Your task to perform on an android device: make emails show in primary in the gmail app Image 0: 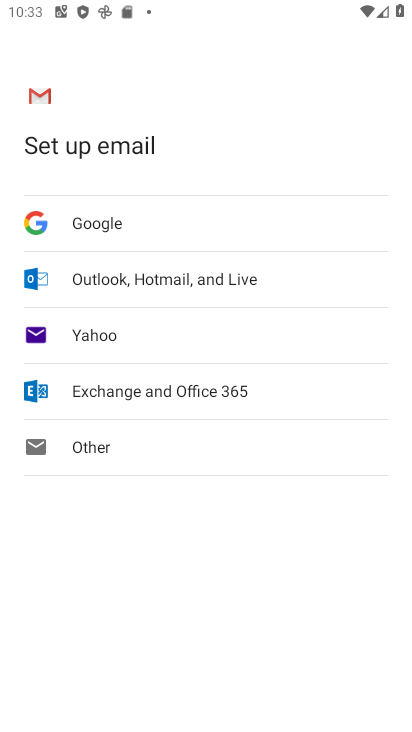
Step 0: press home button
Your task to perform on an android device: make emails show in primary in the gmail app Image 1: 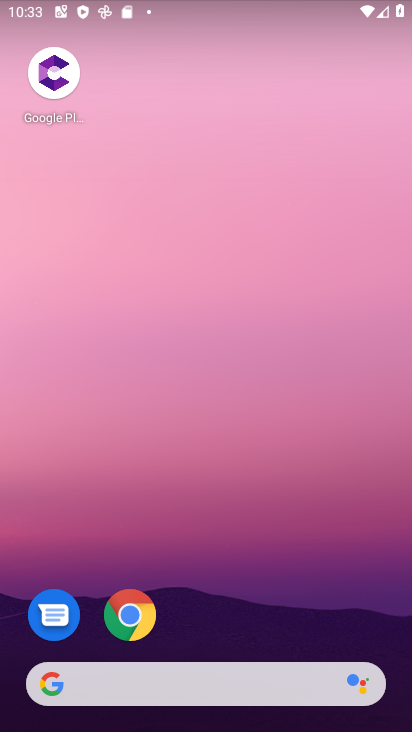
Step 1: drag from (325, 471) to (284, 21)
Your task to perform on an android device: make emails show in primary in the gmail app Image 2: 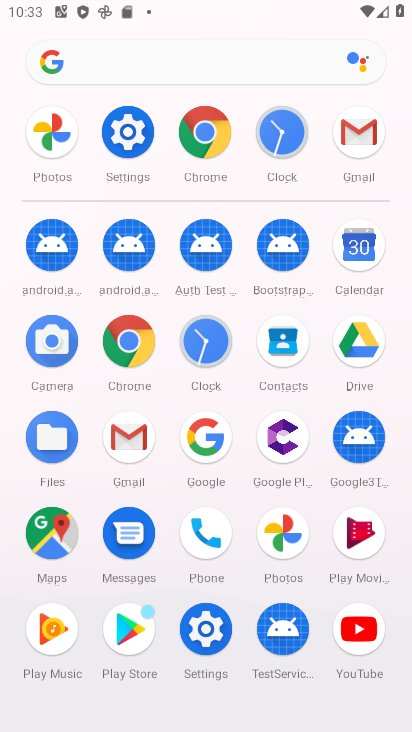
Step 2: click (126, 415)
Your task to perform on an android device: make emails show in primary in the gmail app Image 3: 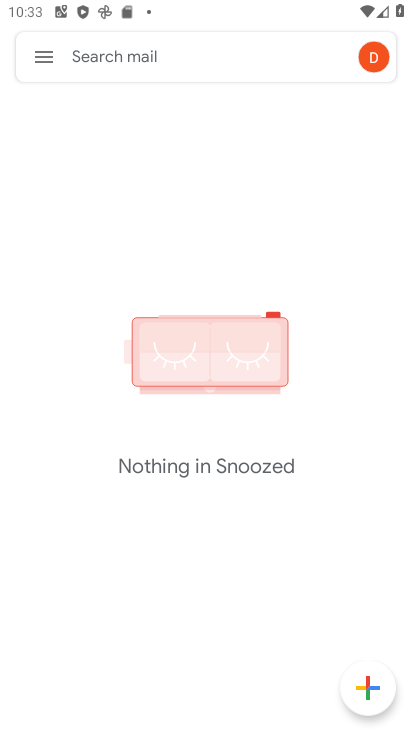
Step 3: click (42, 50)
Your task to perform on an android device: make emails show in primary in the gmail app Image 4: 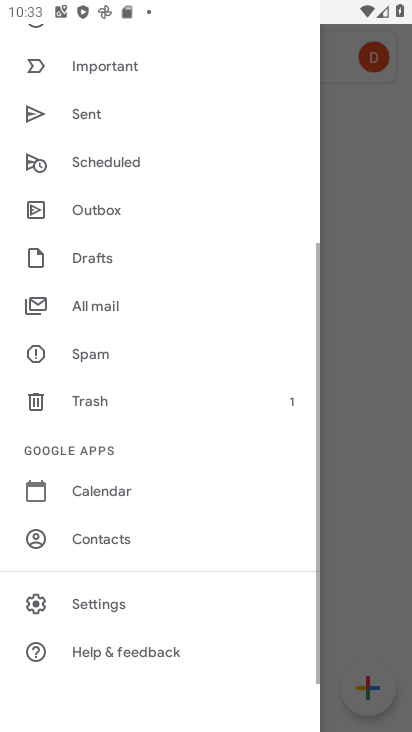
Step 4: drag from (184, 85) to (162, 712)
Your task to perform on an android device: make emails show in primary in the gmail app Image 5: 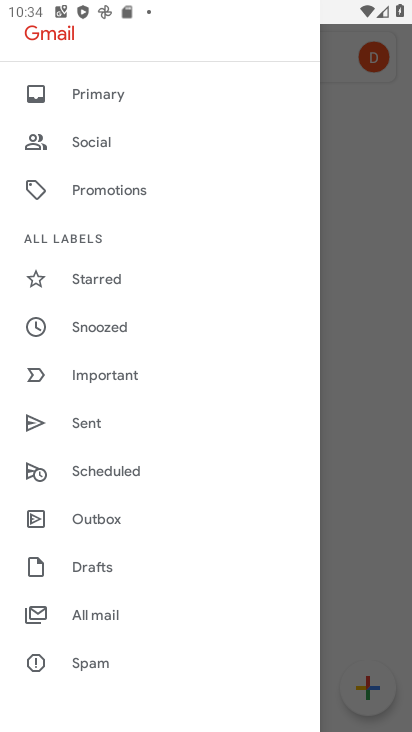
Step 5: click (146, 97)
Your task to perform on an android device: make emails show in primary in the gmail app Image 6: 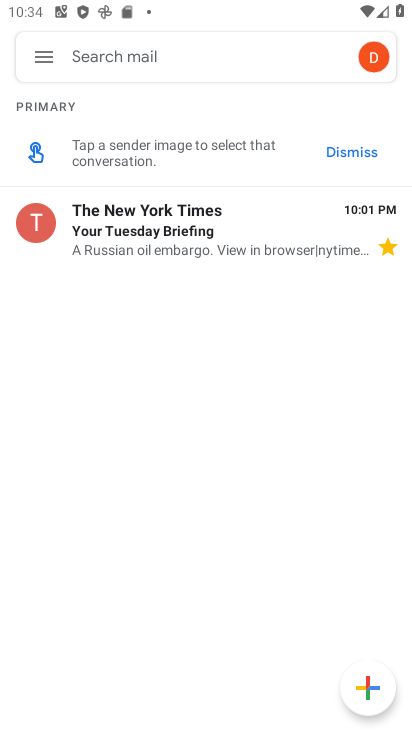
Step 6: task complete